Your task to perform on an android device: Search for bose soundlink mini on target.com, select the first entry, and add it to the cart. Image 0: 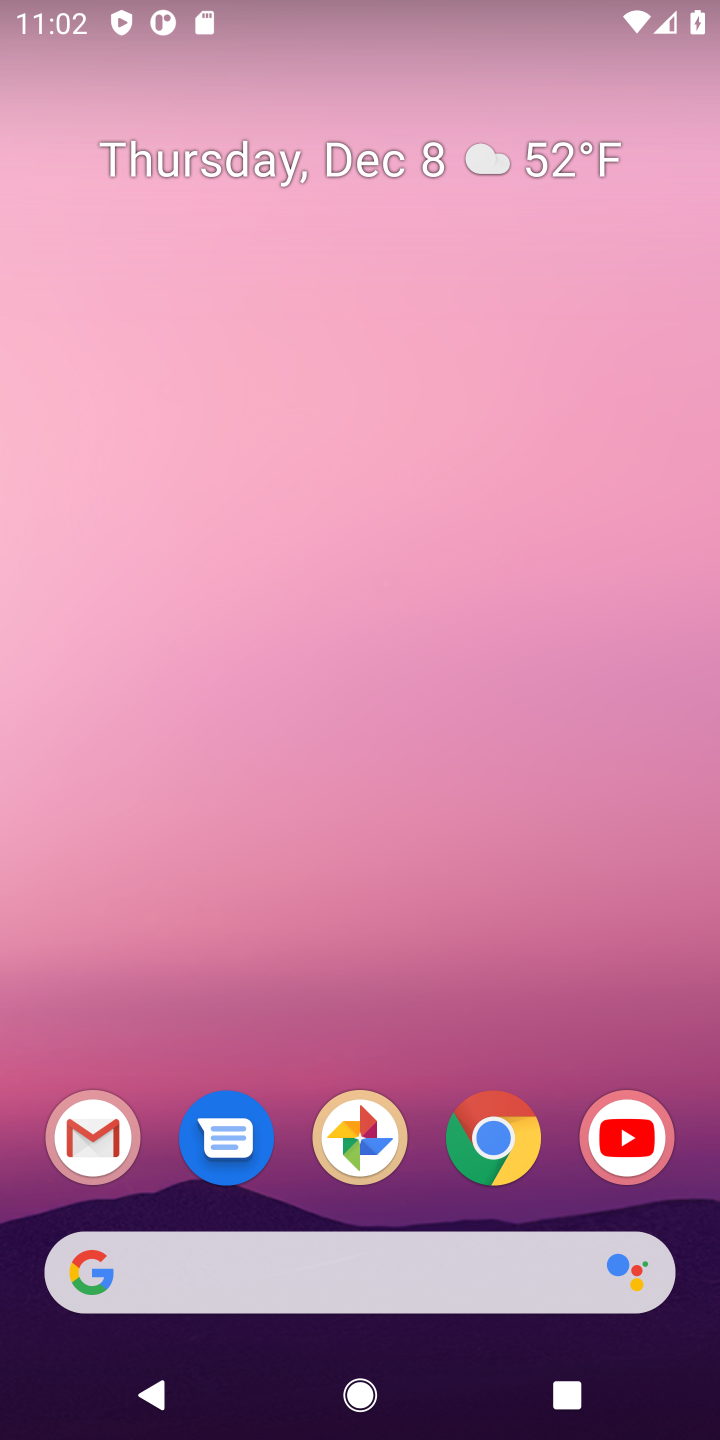
Step 0: click (498, 1115)
Your task to perform on an android device: Search for bose soundlink mini on target.com, select the first entry, and add it to the cart. Image 1: 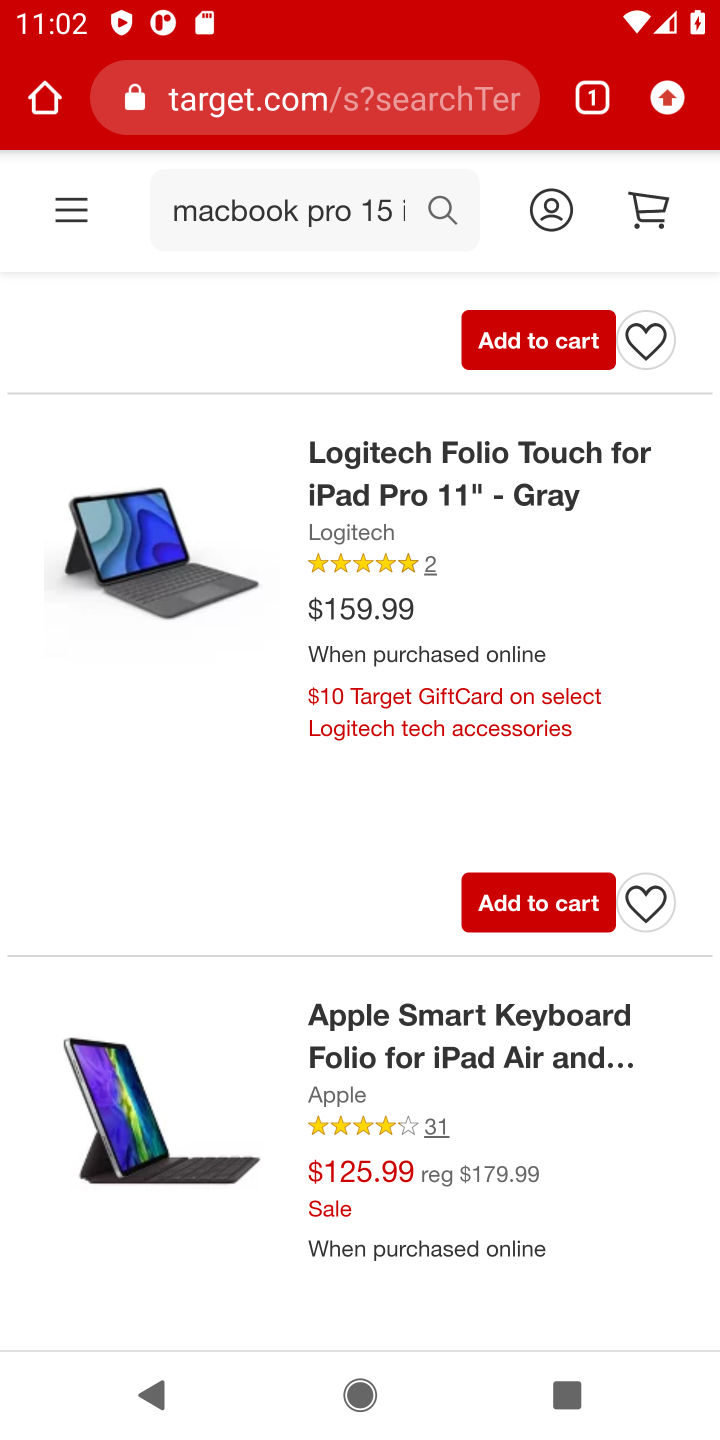
Step 1: click (273, 109)
Your task to perform on an android device: Search for bose soundlink mini on target.com, select the first entry, and add it to the cart. Image 2: 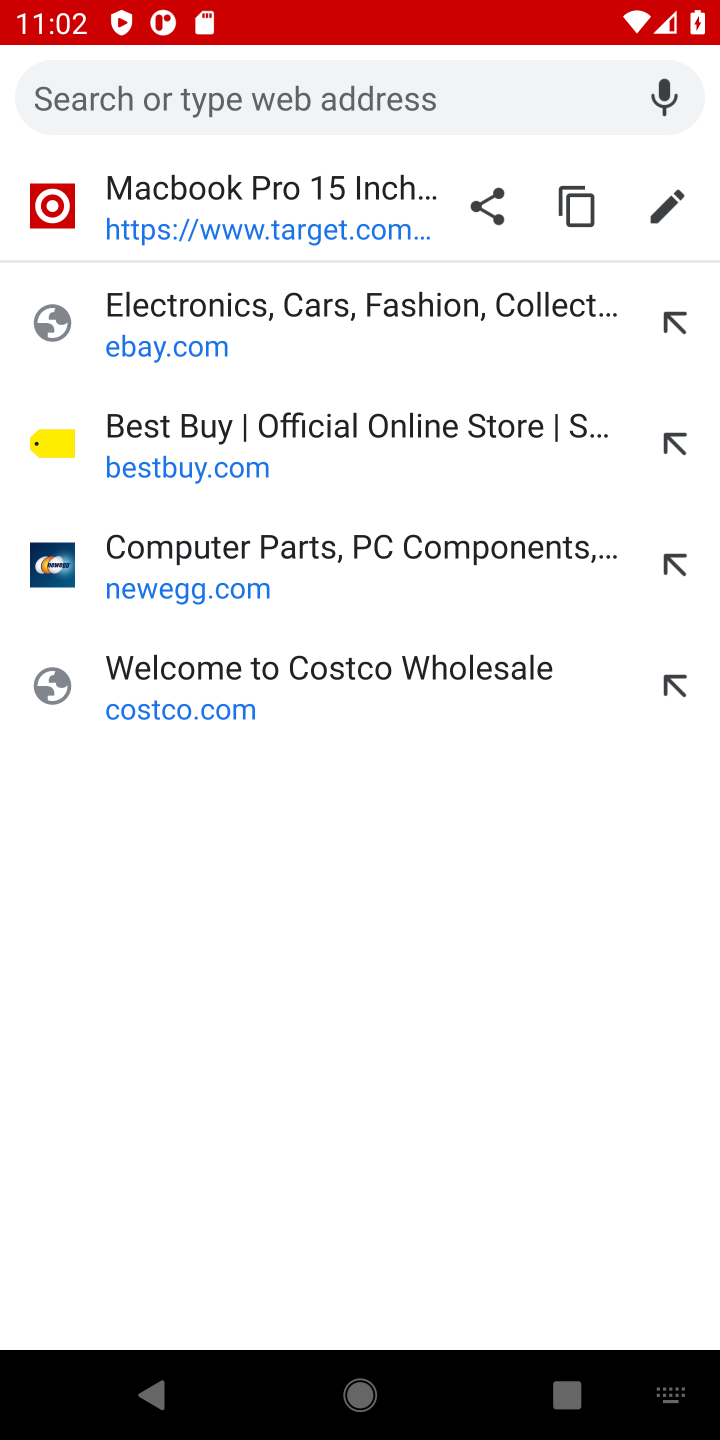
Step 2: press enter
Your task to perform on an android device: Search for bose soundlink mini on target.com, select the first entry, and add it to the cart. Image 3: 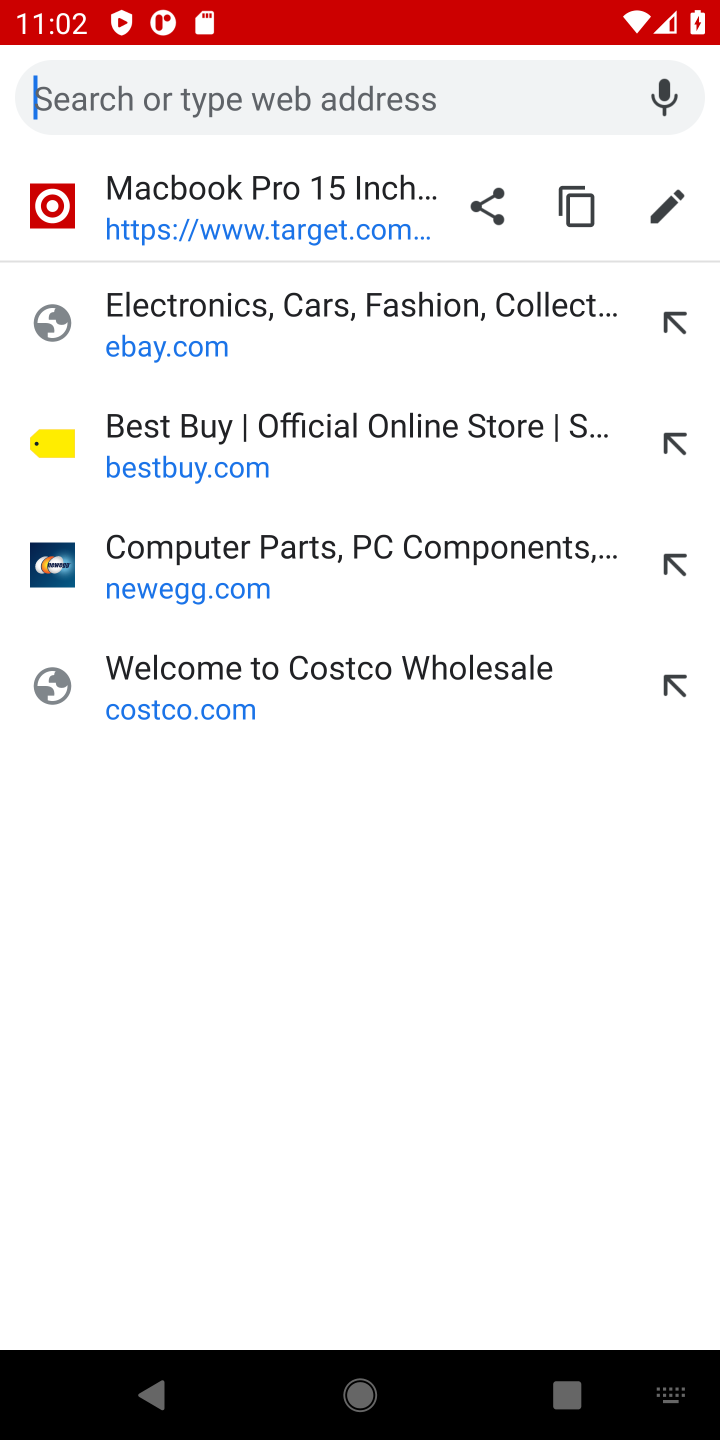
Step 3: type "target.com"
Your task to perform on an android device: Search for bose soundlink mini on target.com, select the first entry, and add it to the cart. Image 4: 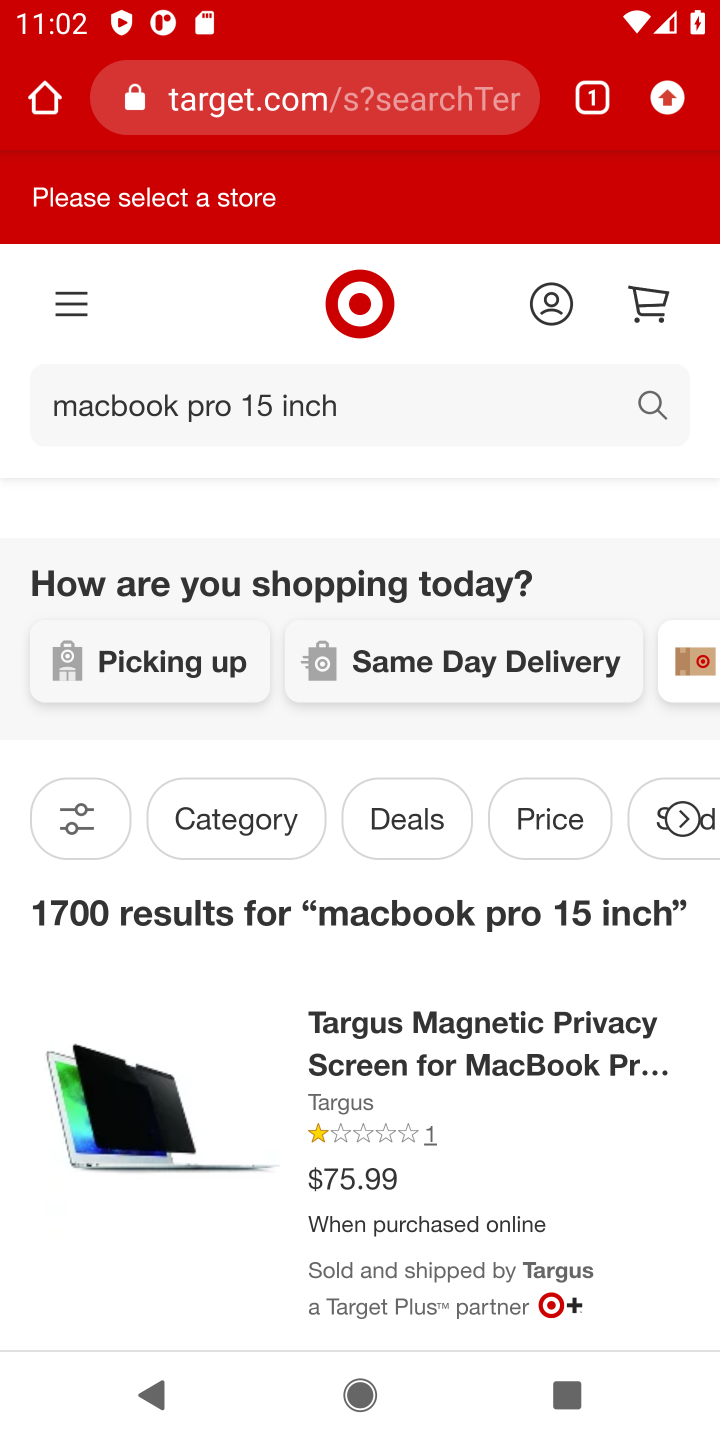
Step 4: click (661, 410)
Your task to perform on an android device: Search for bose soundlink mini on target.com, select the first entry, and add it to the cart. Image 5: 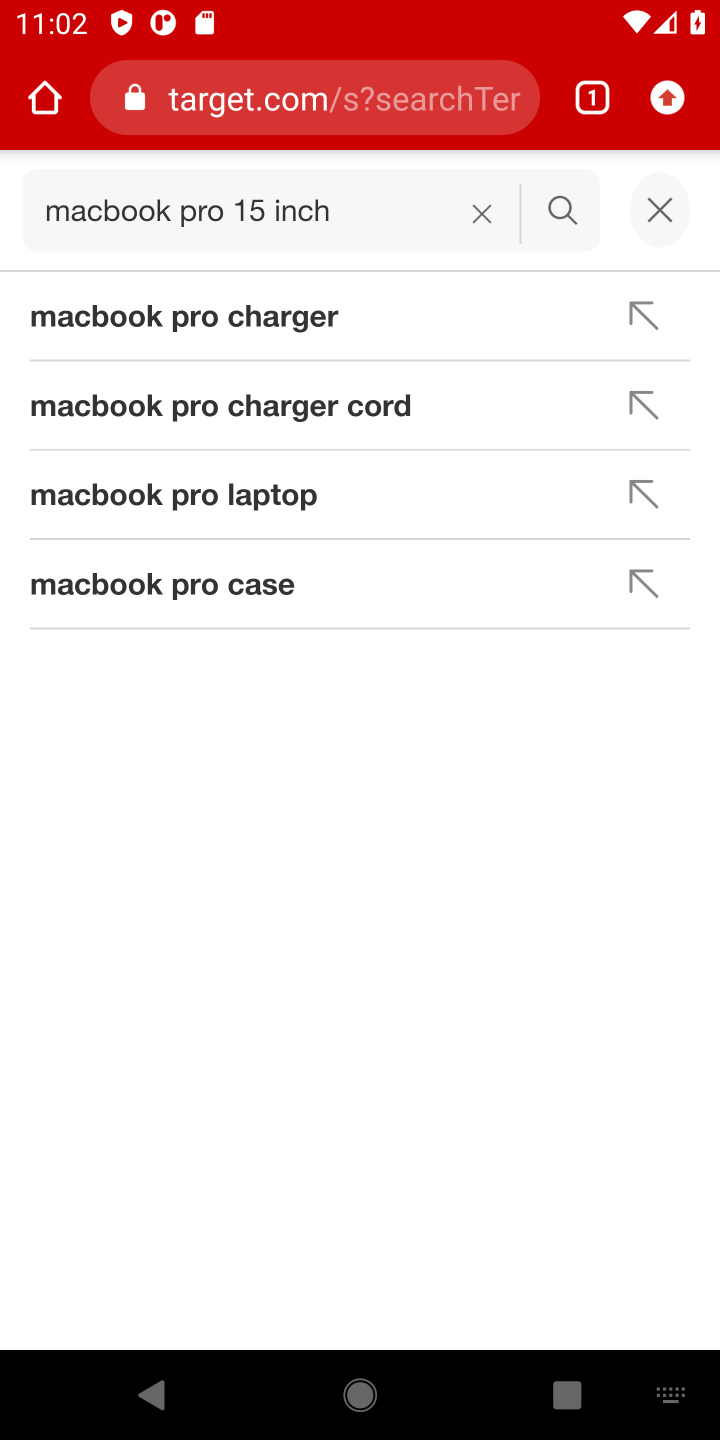
Step 5: click (468, 214)
Your task to perform on an android device: Search for bose soundlink mini on target.com, select the first entry, and add it to the cart. Image 6: 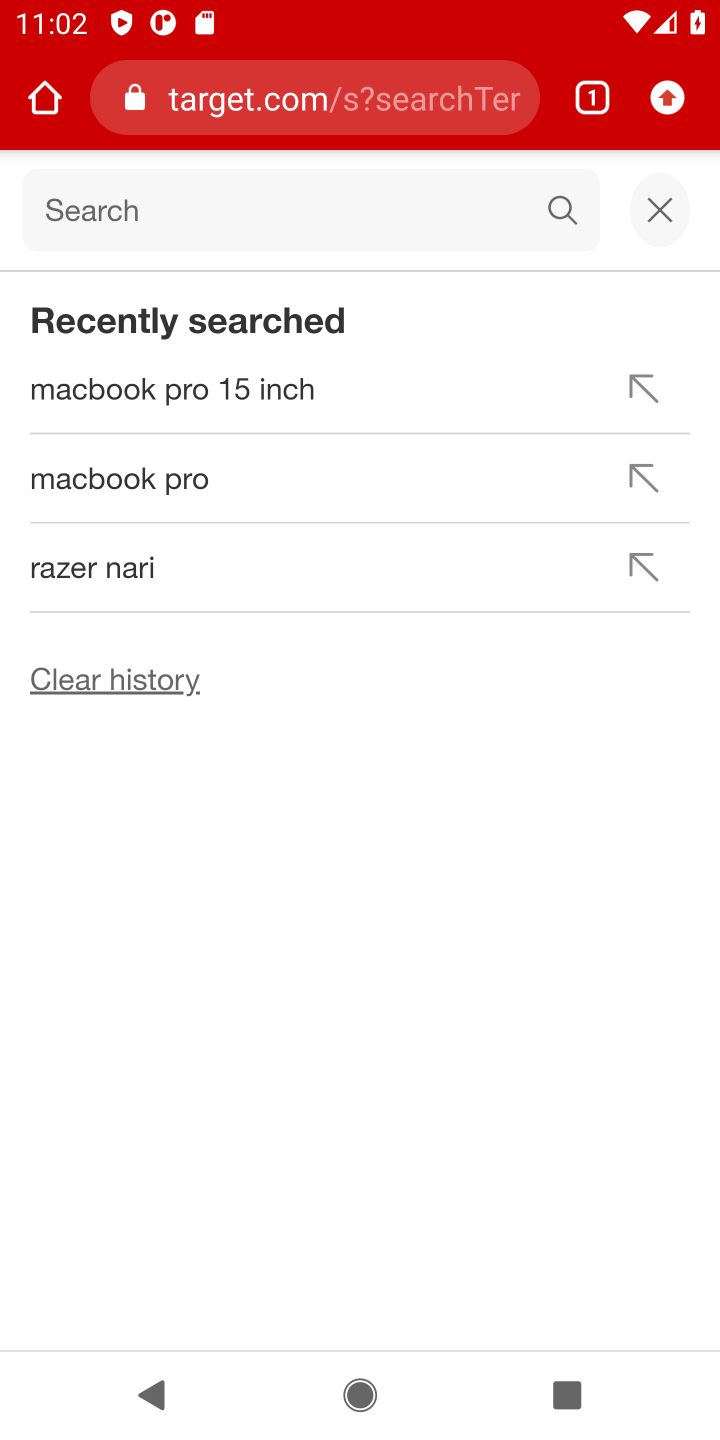
Step 6: type "bose soundlink mini "
Your task to perform on an android device: Search for bose soundlink mini on target.com, select the first entry, and add it to the cart. Image 7: 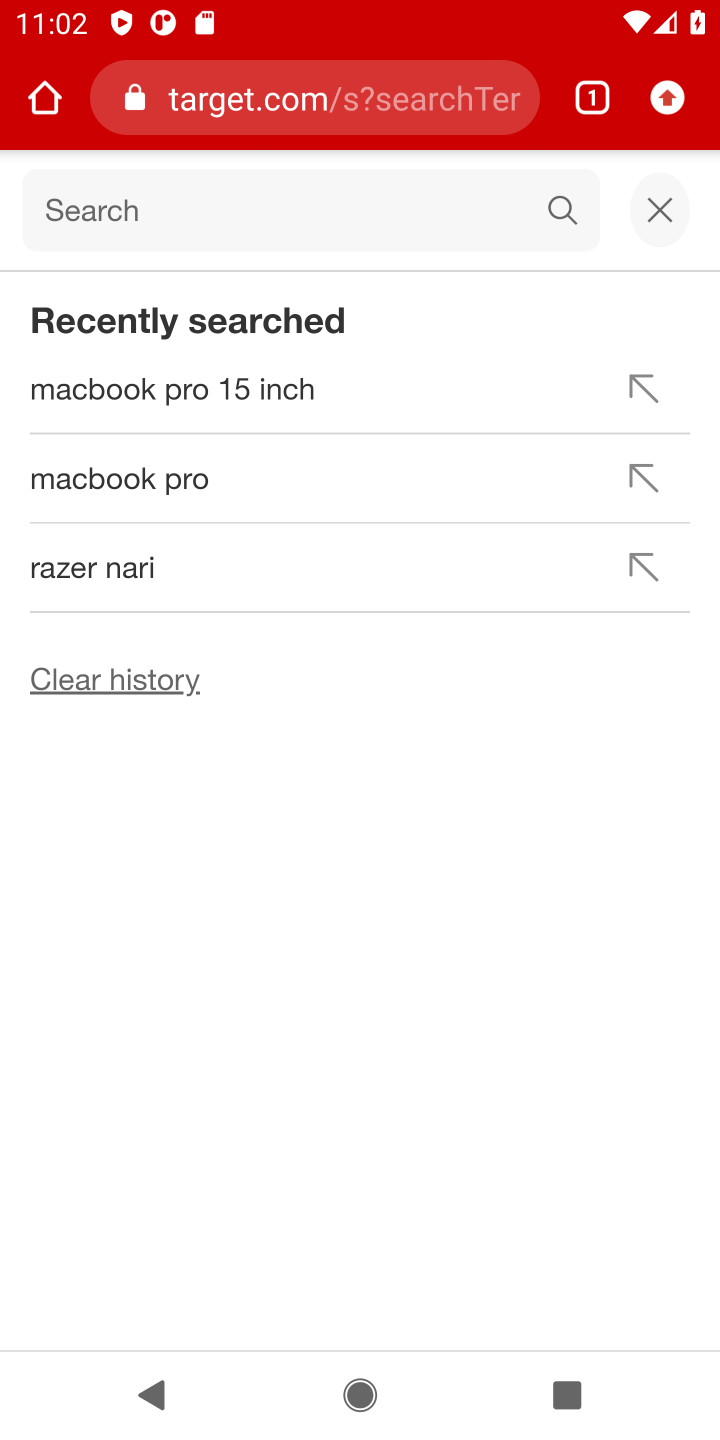
Step 7: press enter
Your task to perform on an android device: Search for bose soundlink mini on target.com, select the first entry, and add it to the cart. Image 8: 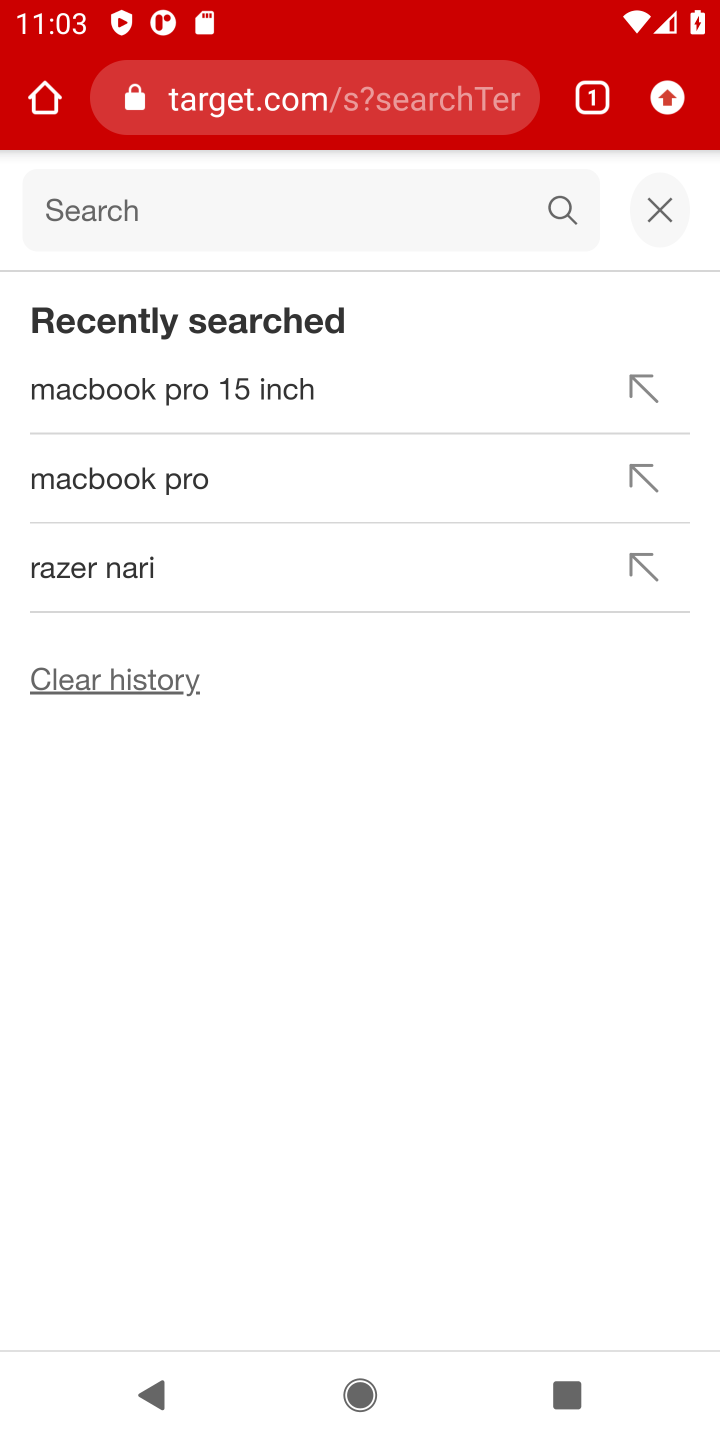
Step 8: click (526, 204)
Your task to perform on an android device: Search for bose soundlink mini on target.com, select the first entry, and add it to the cart. Image 9: 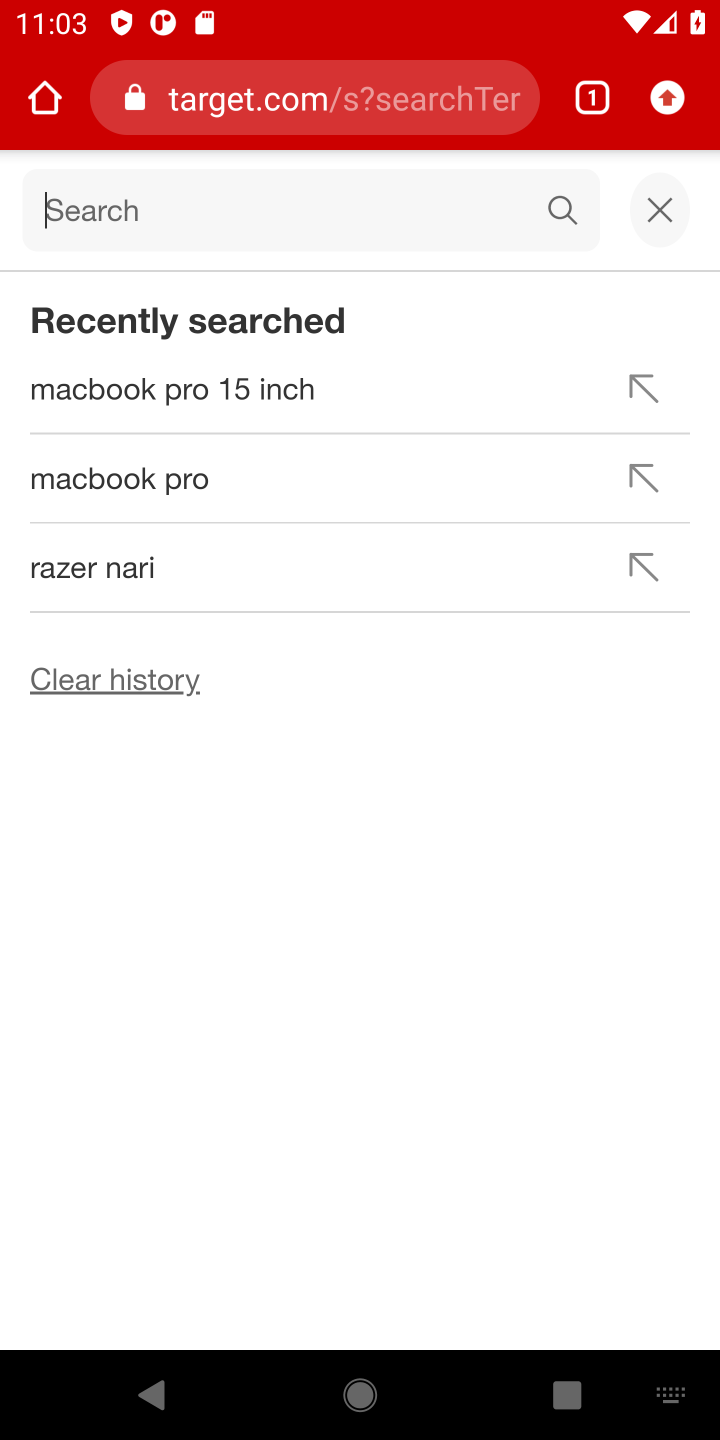
Step 9: press enter
Your task to perform on an android device: Search for bose soundlink mini on target.com, select the first entry, and add it to the cart. Image 10: 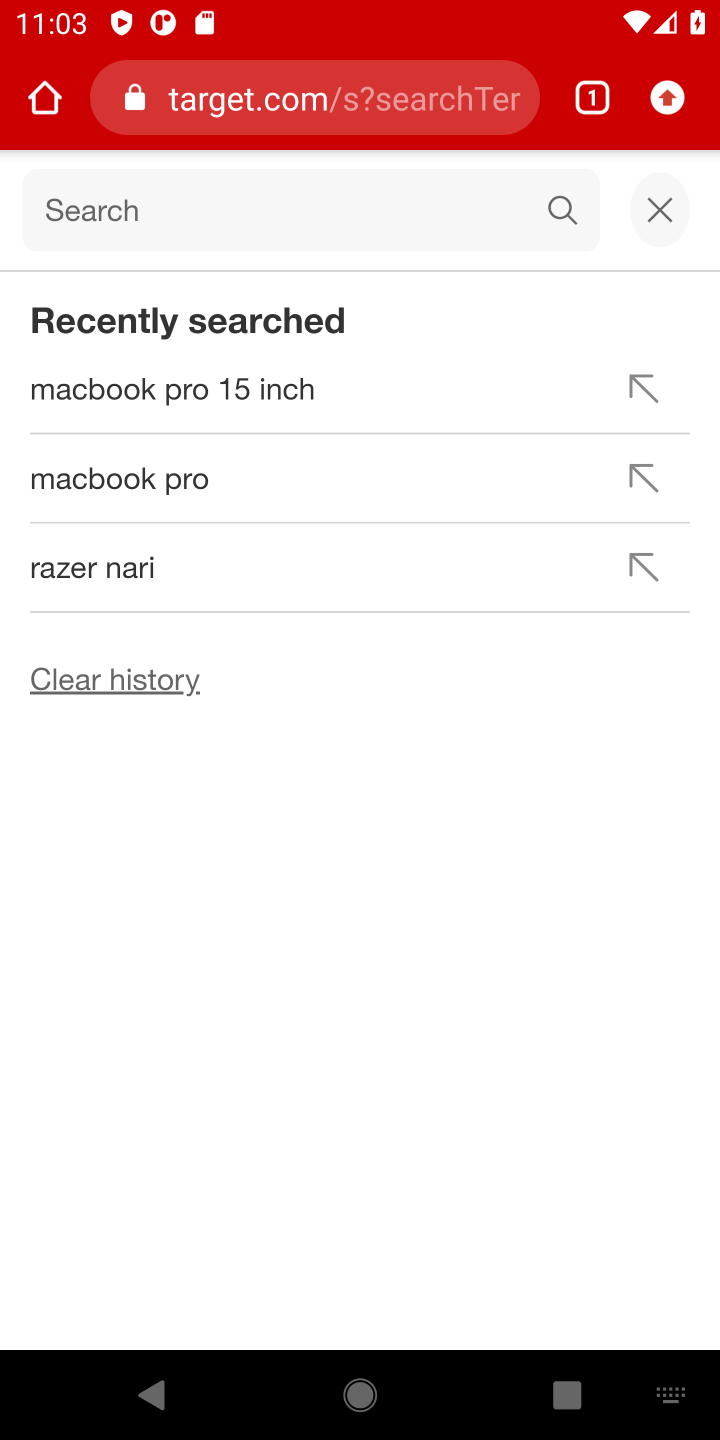
Step 10: type "bose soundlink mini "
Your task to perform on an android device: Search for bose soundlink mini on target.com, select the first entry, and add it to the cart. Image 11: 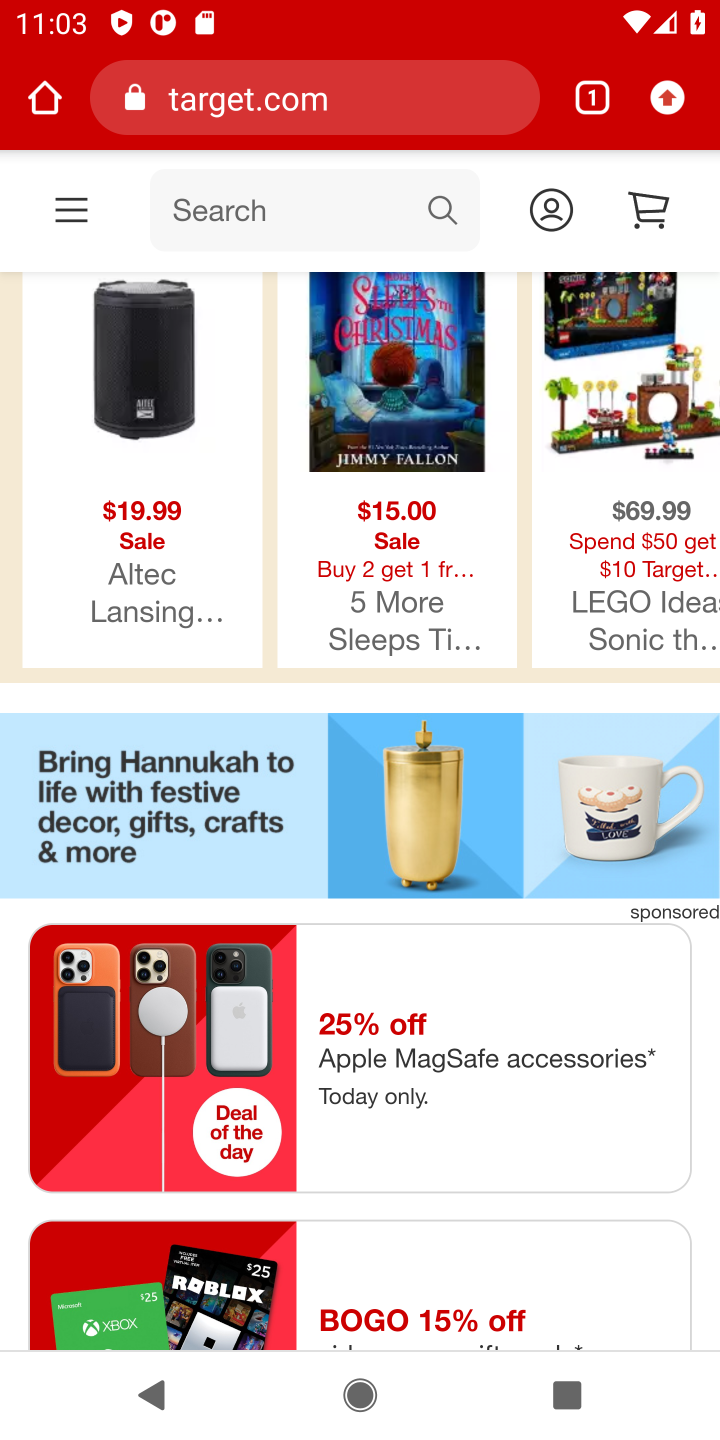
Step 11: click (429, 211)
Your task to perform on an android device: Search for bose soundlink mini on target.com, select the first entry, and add it to the cart. Image 12: 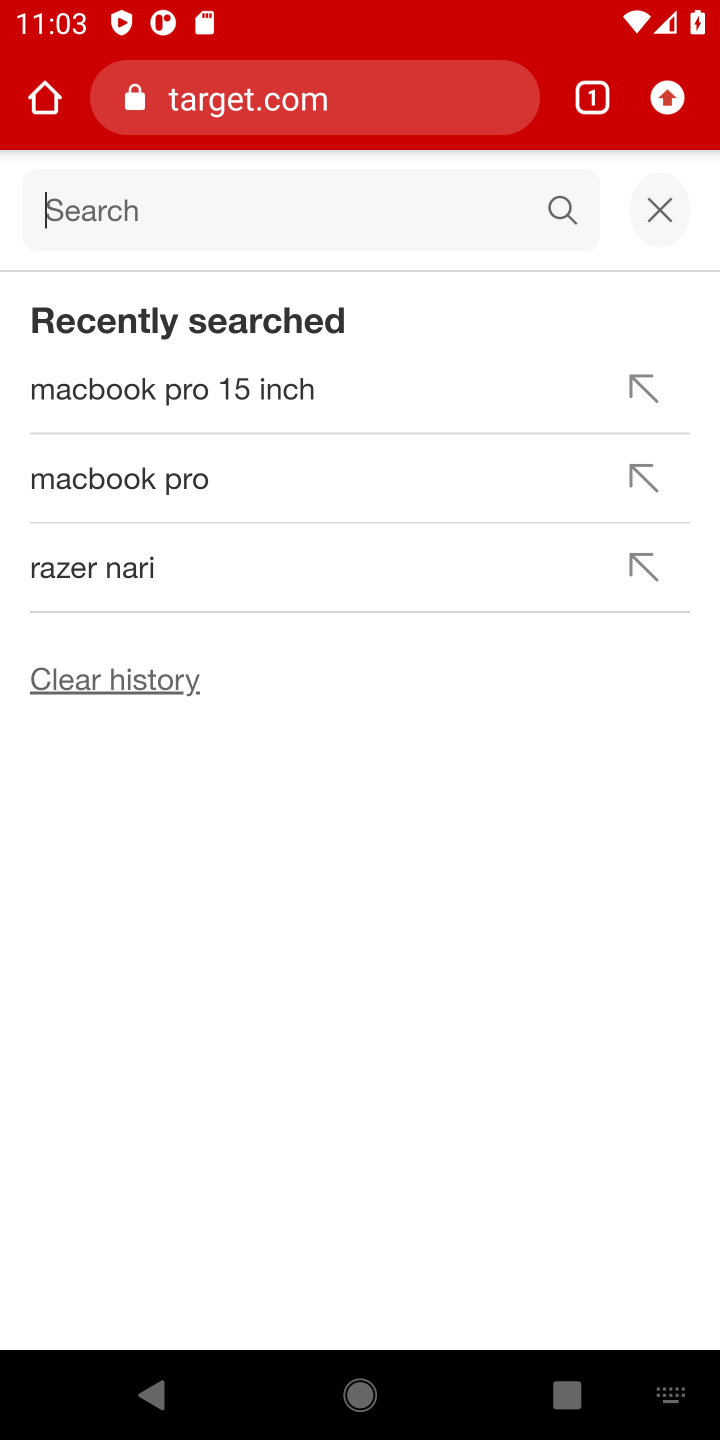
Step 12: type "bose soundlink mini "
Your task to perform on an android device: Search for bose soundlink mini on target.com, select the first entry, and add it to the cart. Image 13: 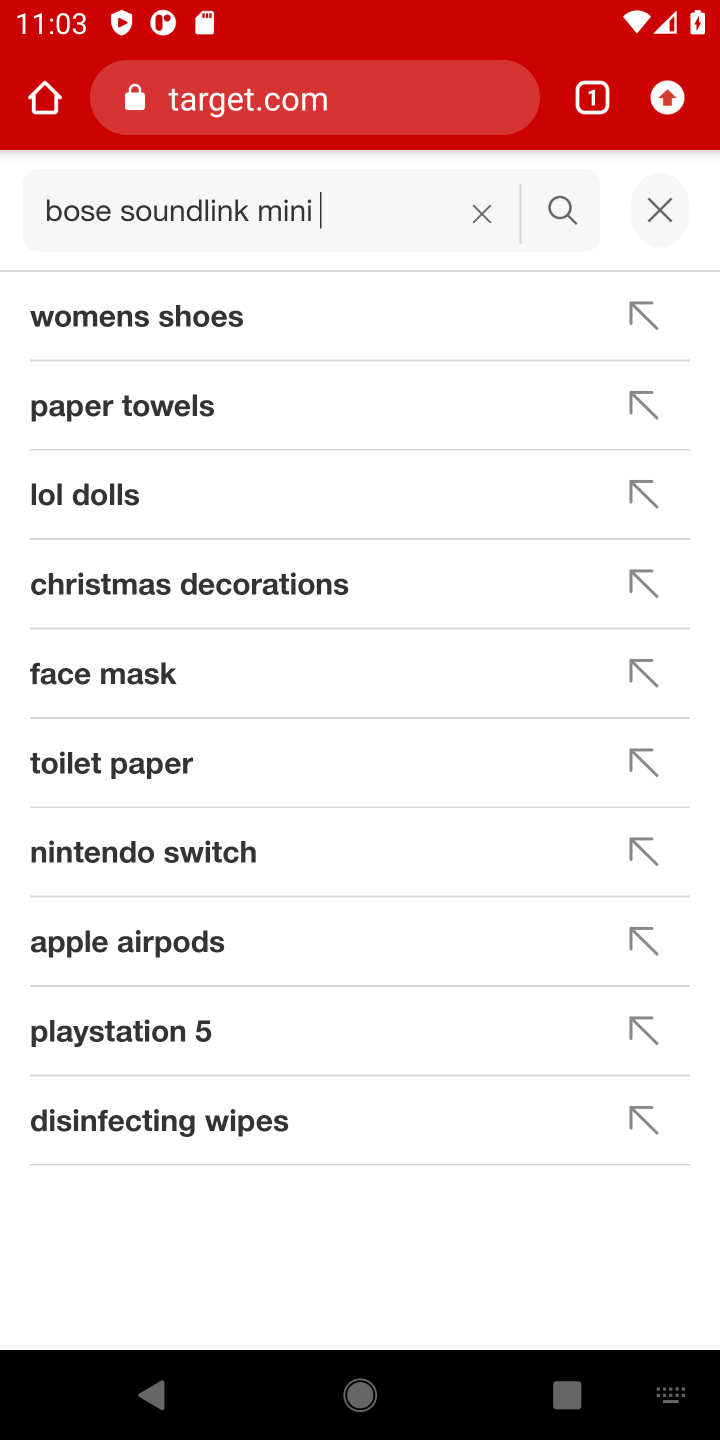
Step 13: press enter
Your task to perform on an android device: Search for bose soundlink mini on target.com, select the first entry, and add it to the cart. Image 14: 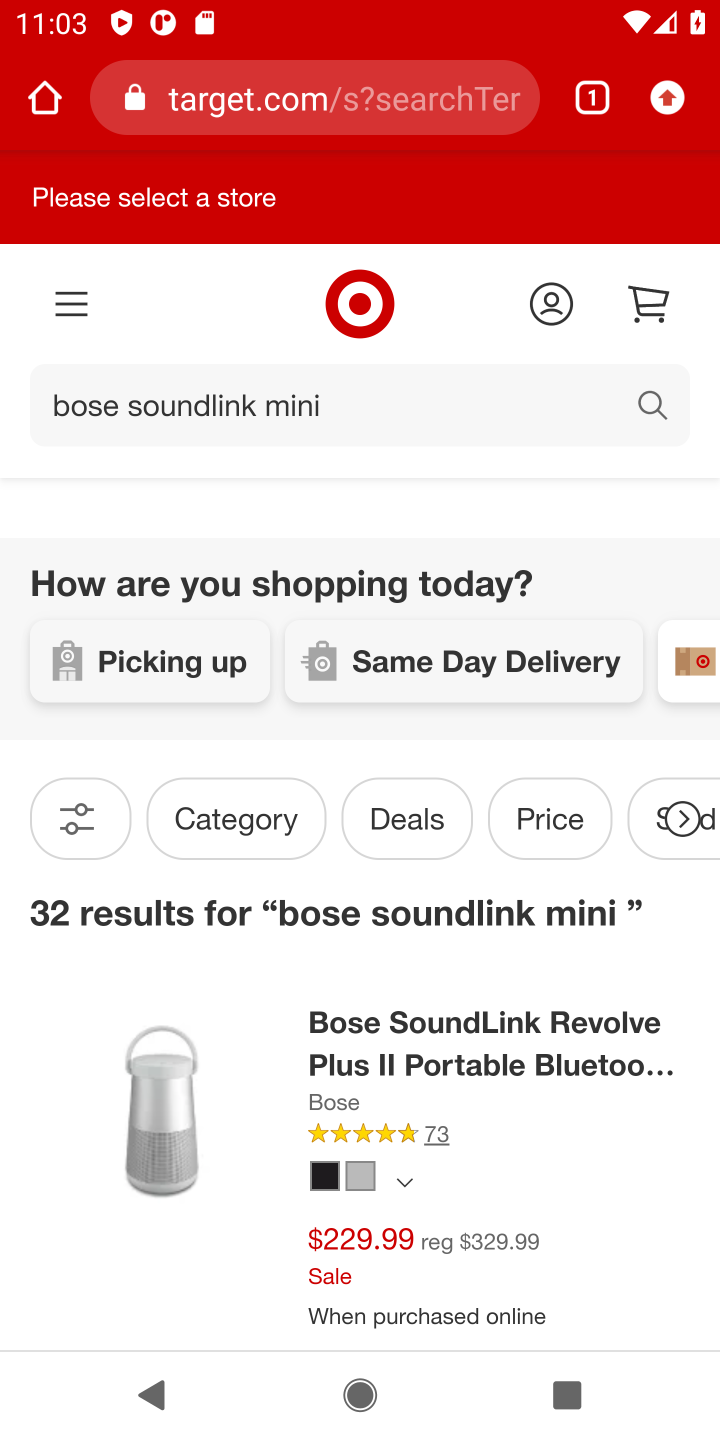
Step 14: task complete